Your task to perform on an android device: turn off translation in the chrome app Image 0: 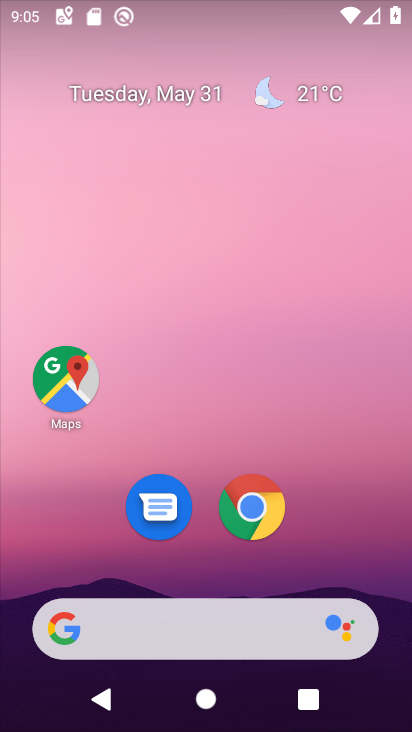
Step 0: click (205, 219)
Your task to perform on an android device: turn off translation in the chrome app Image 1: 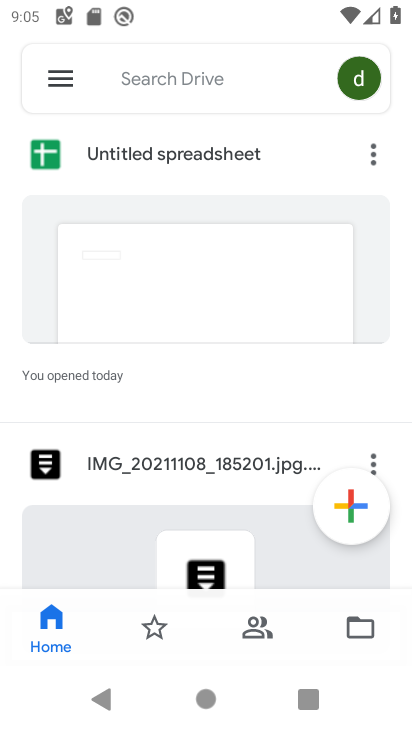
Step 1: press back button
Your task to perform on an android device: turn off translation in the chrome app Image 2: 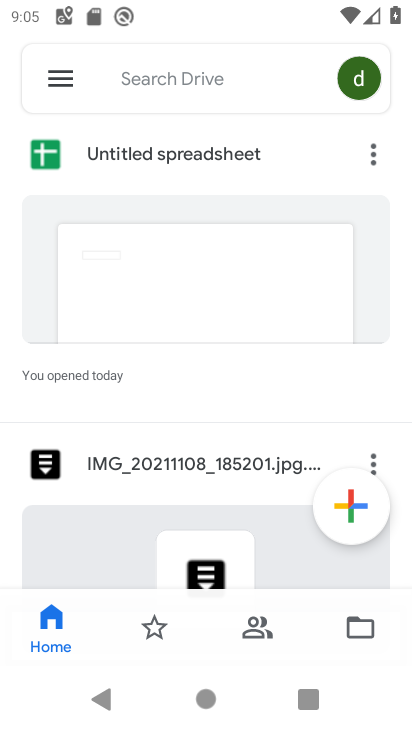
Step 2: press back button
Your task to perform on an android device: turn off translation in the chrome app Image 3: 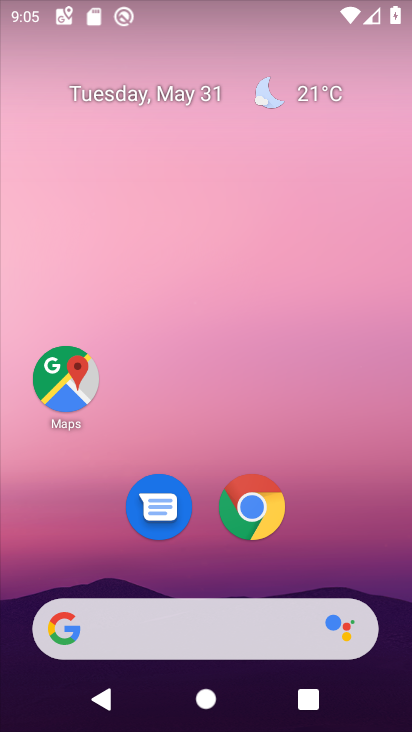
Step 3: drag from (243, 674) to (163, 14)
Your task to perform on an android device: turn off translation in the chrome app Image 4: 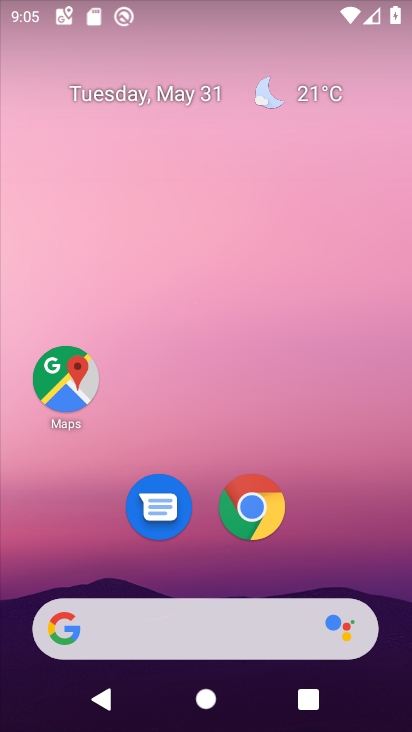
Step 4: drag from (260, 668) to (215, 156)
Your task to perform on an android device: turn off translation in the chrome app Image 5: 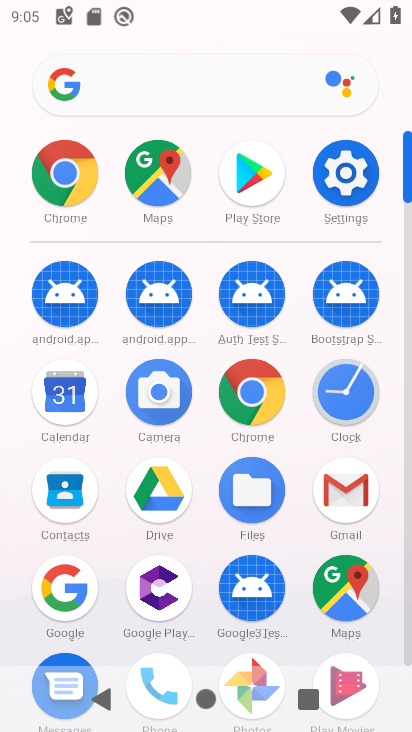
Step 5: click (246, 383)
Your task to perform on an android device: turn off translation in the chrome app Image 6: 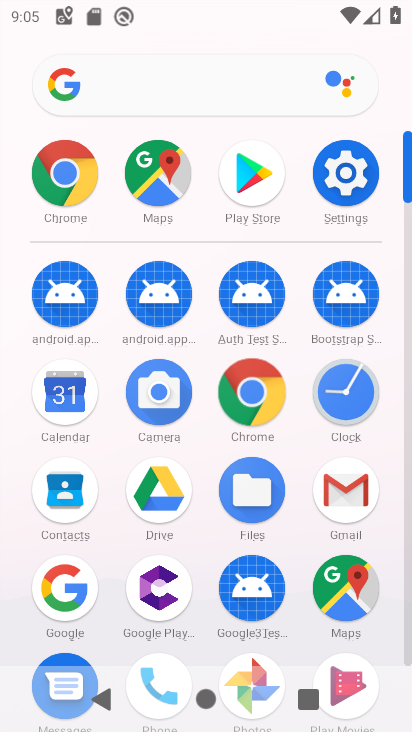
Step 6: click (246, 383)
Your task to perform on an android device: turn off translation in the chrome app Image 7: 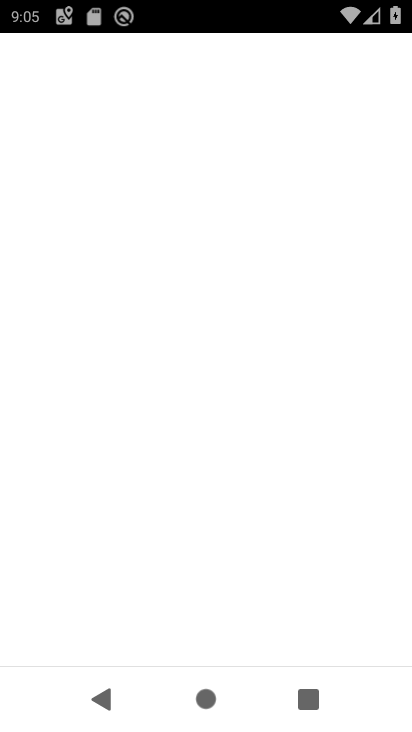
Step 7: click (241, 387)
Your task to perform on an android device: turn off translation in the chrome app Image 8: 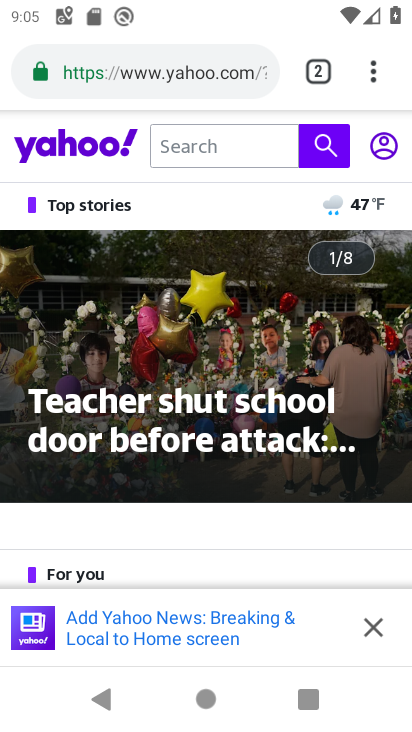
Step 8: drag from (374, 78) to (104, 504)
Your task to perform on an android device: turn off translation in the chrome app Image 9: 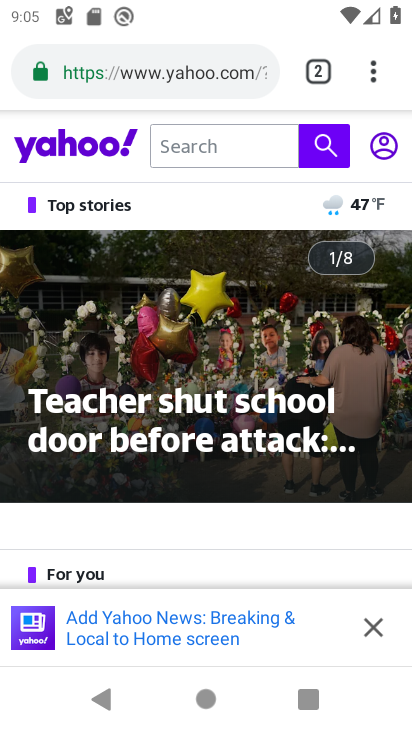
Step 9: click (103, 503)
Your task to perform on an android device: turn off translation in the chrome app Image 10: 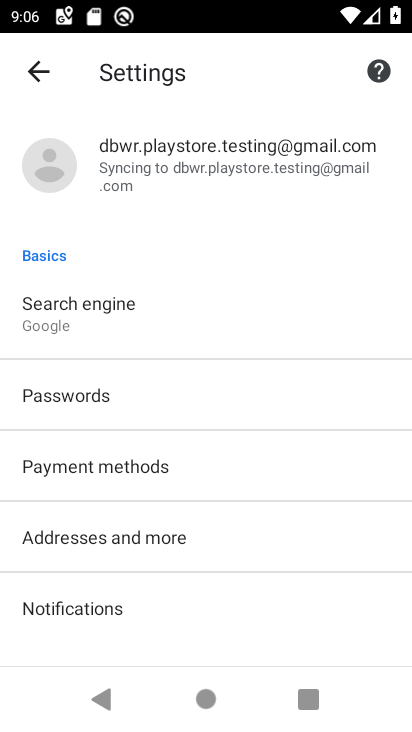
Step 10: drag from (185, 438) to (126, 89)
Your task to perform on an android device: turn off translation in the chrome app Image 11: 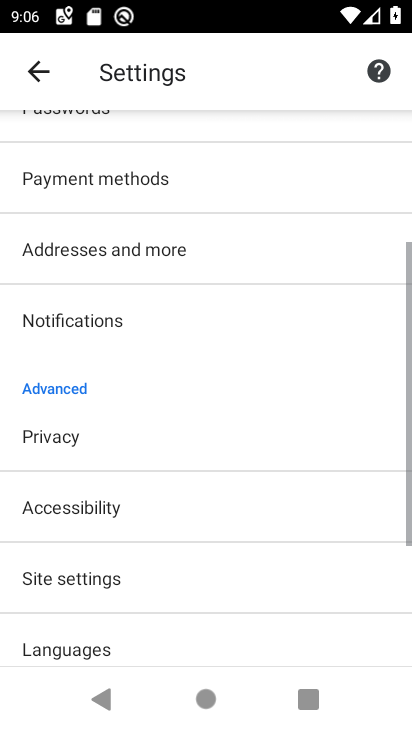
Step 11: drag from (200, 423) to (256, 188)
Your task to perform on an android device: turn off translation in the chrome app Image 12: 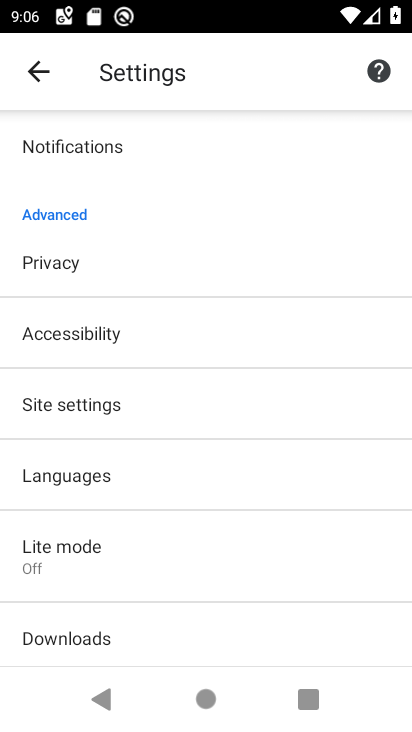
Step 12: click (52, 478)
Your task to perform on an android device: turn off translation in the chrome app Image 13: 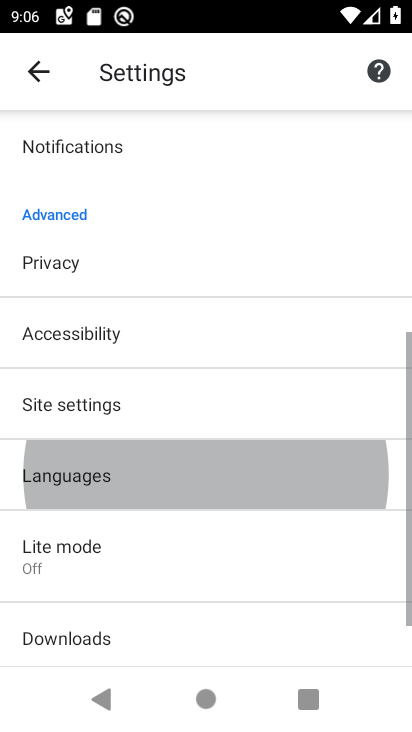
Step 13: click (53, 478)
Your task to perform on an android device: turn off translation in the chrome app Image 14: 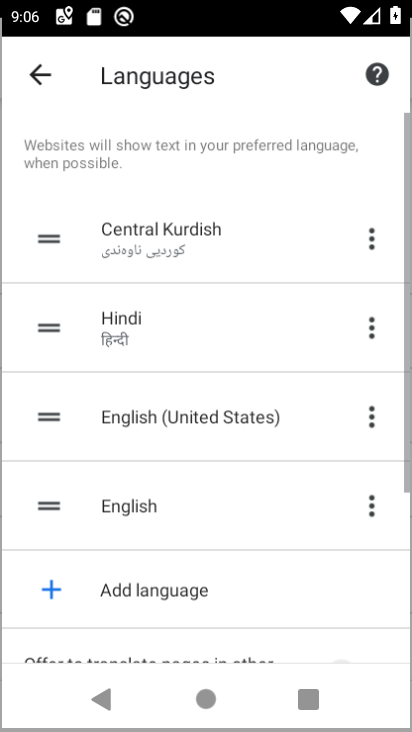
Step 14: click (53, 478)
Your task to perform on an android device: turn off translation in the chrome app Image 15: 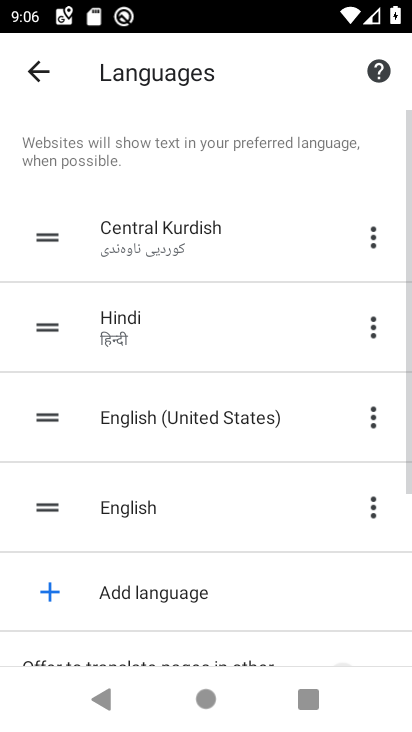
Step 15: drag from (202, 410) to (190, 143)
Your task to perform on an android device: turn off translation in the chrome app Image 16: 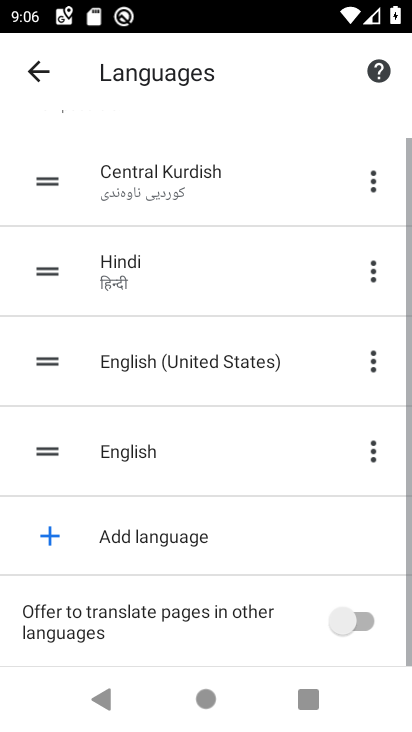
Step 16: drag from (264, 456) to (265, 157)
Your task to perform on an android device: turn off translation in the chrome app Image 17: 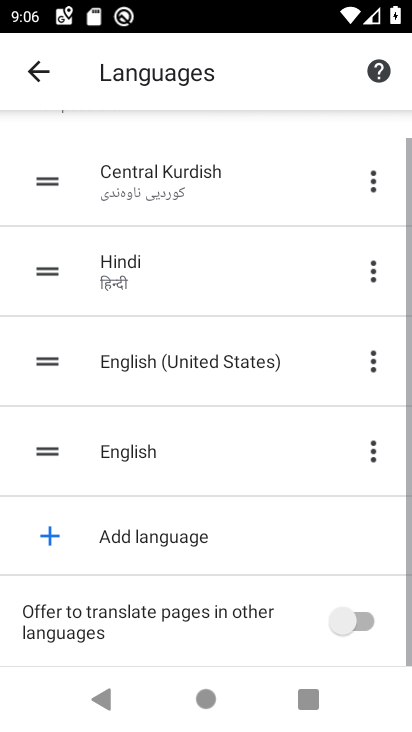
Step 17: drag from (257, 355) to (257, 213)
Your task to perform on an android device: turn off translation in the chrome app Image 18: 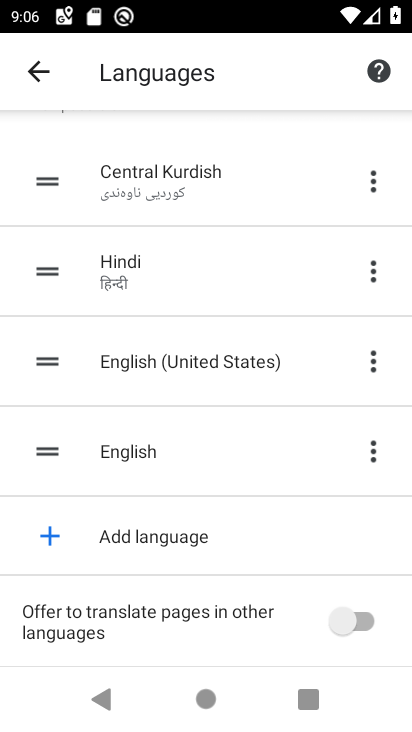
Step 18: click (345, 627)
Your task to perform on an android device: turn off translation in the chrome app Image 19: 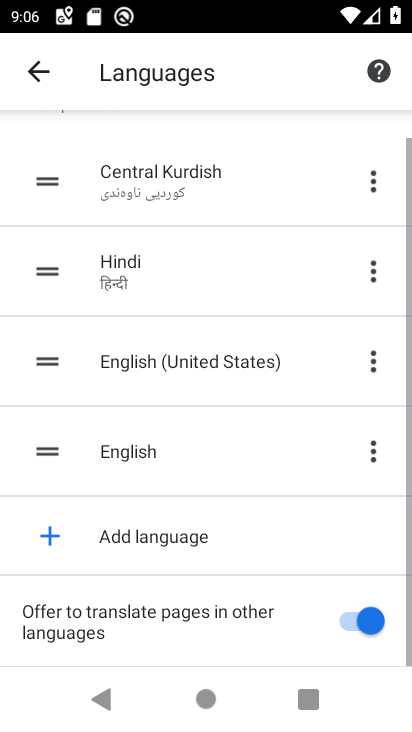
Step 19: click (363, 623)
Your task to perform on an android device: turn off translation in the chrome app Image 20: 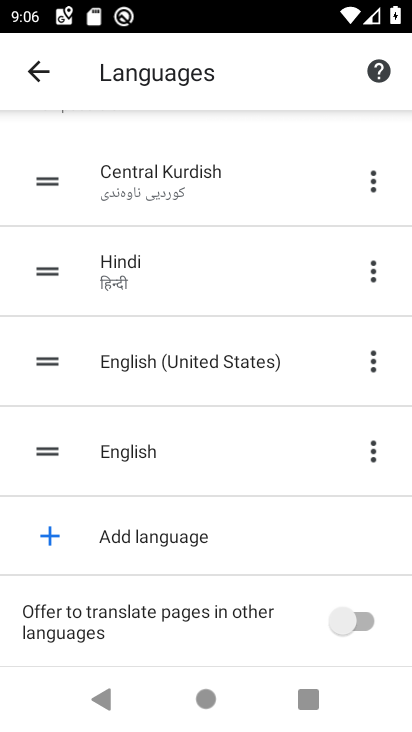
Step 20: task complete